Your task to perform on an android device: Do I have any events this weekend? Image 0: 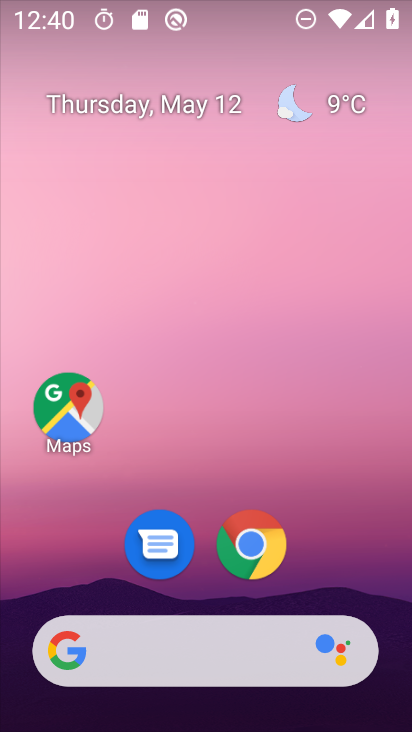
Step 0: drag from (230, 716) to (234, 221)
Your task to perform on an android device: Do I have any events this weekend? Image 1: 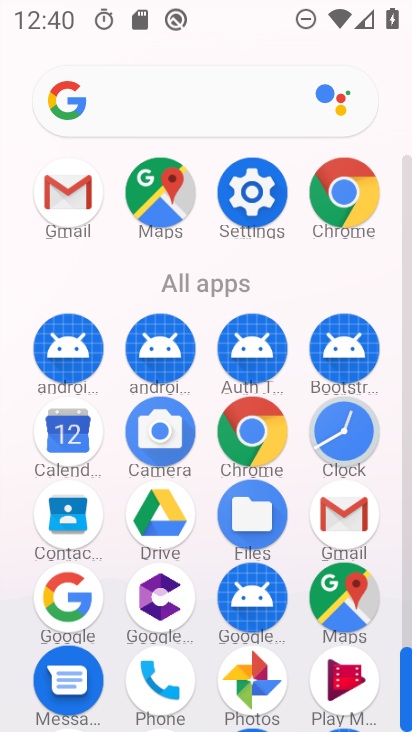
Step 1: click (61, 432)
Your task to perform on an android device: Do I have any events this weekend? Image 2: 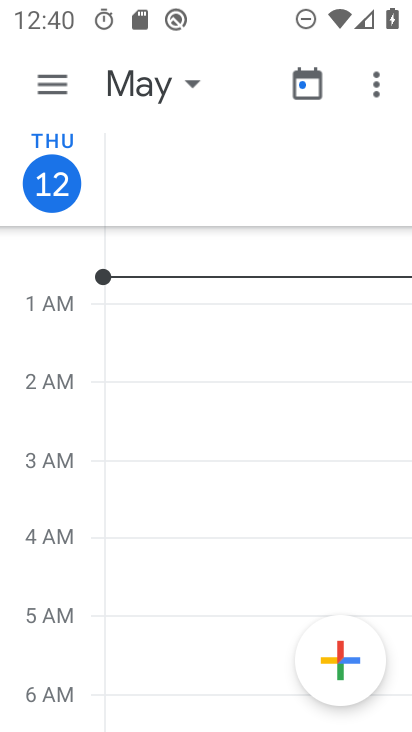
Step 2: click (130, 83)
Your task to perform on an android device: Do I have any events this weekend? Image 3: 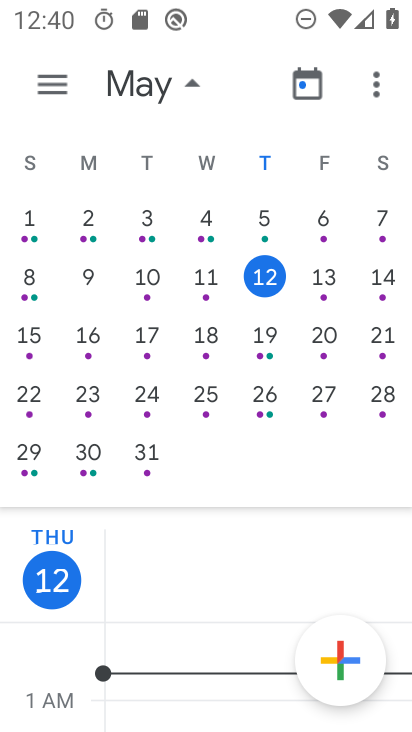
Step 3: click (52, 77)
Your task to perform on an android device: Do I have any events this weekend? Image 4: 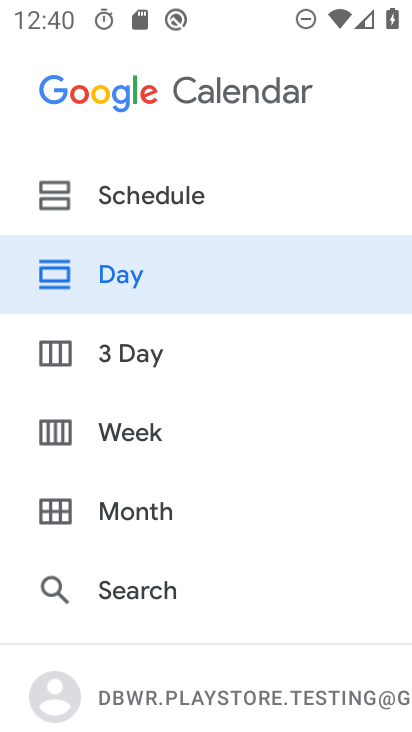
Step 4: drag from (149, 647) to (160, 194)
Your task to perform on an android device: Do I have any events this weekend? Image 5: 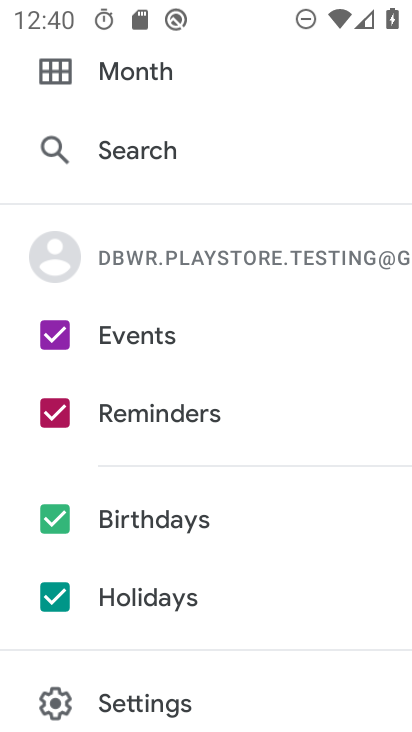
Step 5: click (54, 590)
Your task to perform on an android device: Do I have any events this weekend? Image 6: 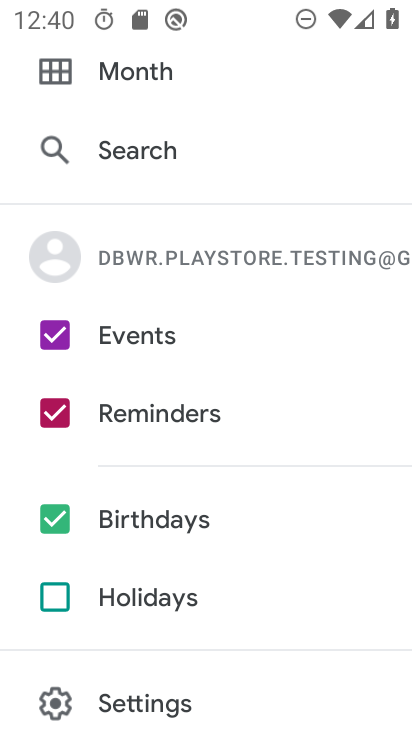
Step 6: click (64, 520)
Your task to perform on an android device: Do I have any events this weekend? Image 7: 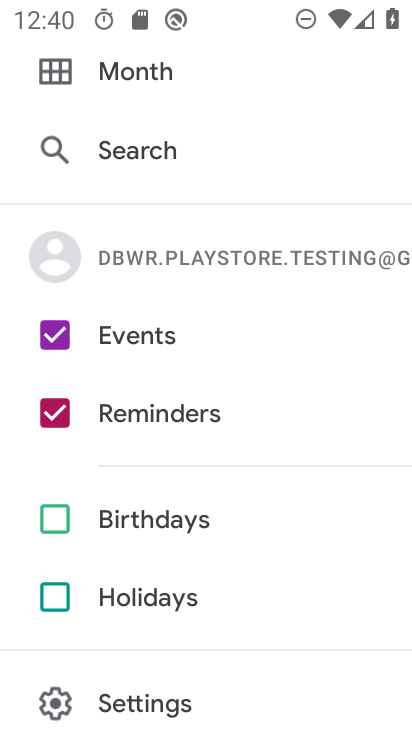
Step 7: click (54, 403)
Your task to perform on an android device: Do I have any events this weekend? Image 8: 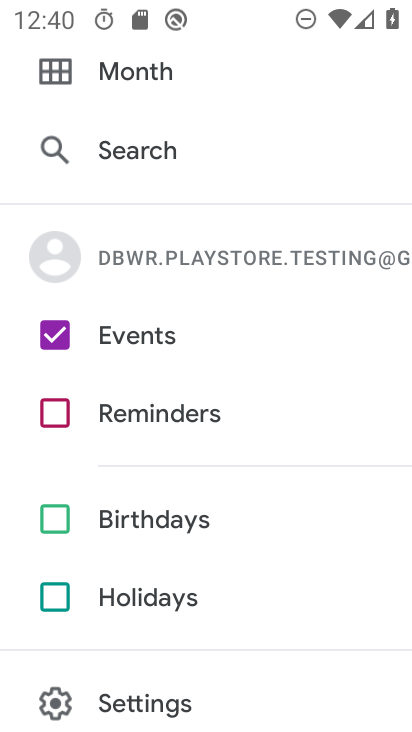
Step 8: drag from (252, 147) to (266, 509)
Your task to perform on an android device: Do I have any events this weekend? Image 9: 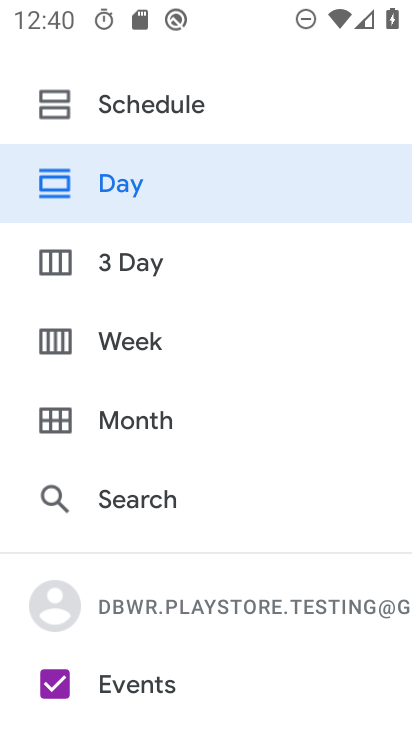
Step 9: click (127, 341)
Your task to perform on an android device: Do I have any events this weekend? Image 10: 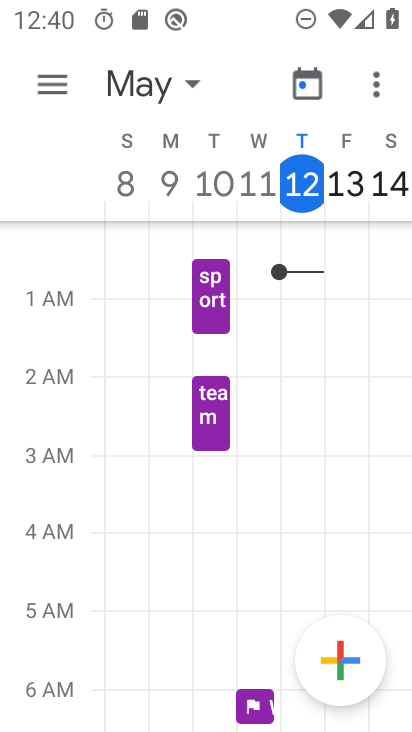
Step 10: click (386, 172)
Your task to perform on an android device: Do I have any events this weekend? Image 11: 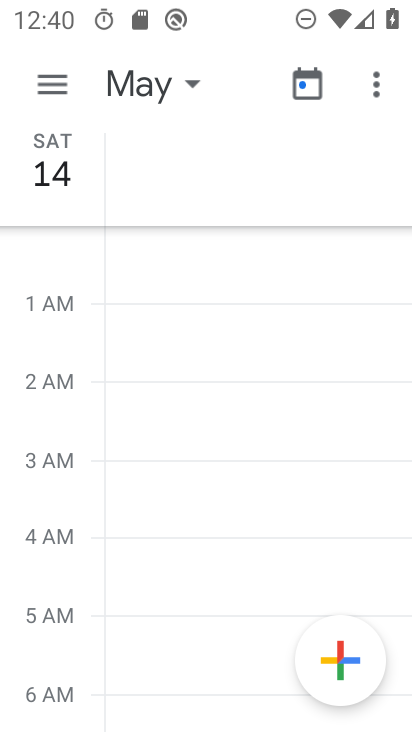
Step 11: task complete